Your task to perform on an android device: See recent photos Image 0: 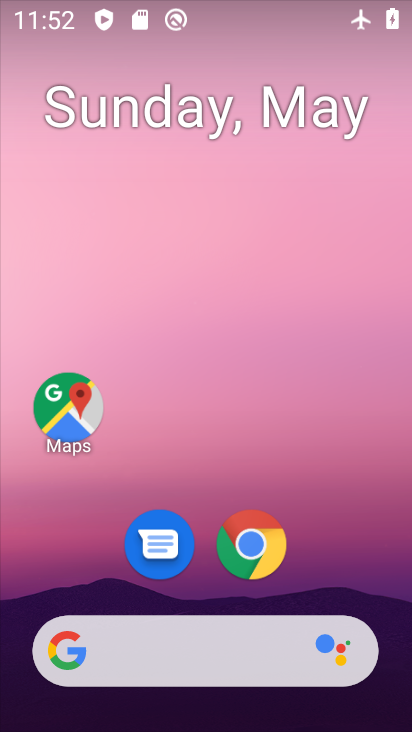
Step 0: drag from (346, 605) to (369, 10)
Your task to perform on an android device: See recent photos Image 1: 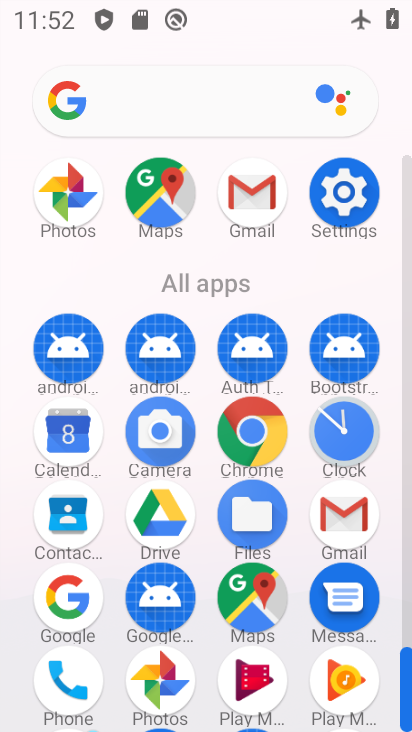
Step 1: drag from (302, 648) to (292, 223)
Your task to perform on an android device: See recent photos Image 2: 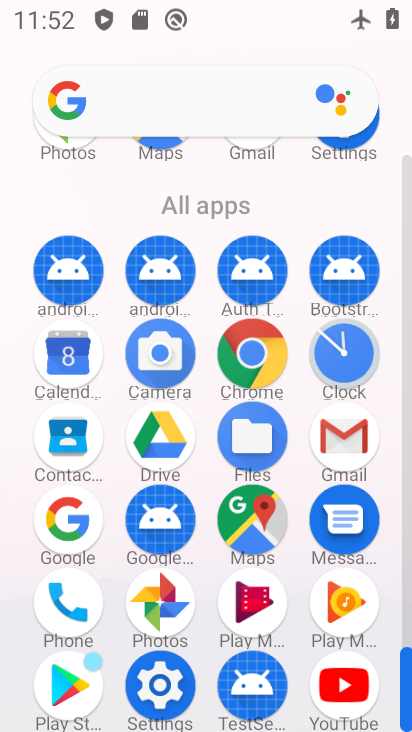
Step 2: click (164, 600)
Your task to perform on an android device: See recent photos Image 3: 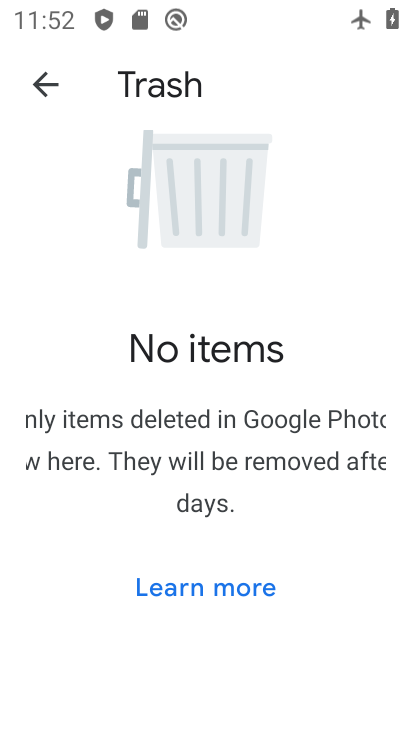
Step 3: task complete